Your task to perform on an android device: Go to ESPN.com Image 0: 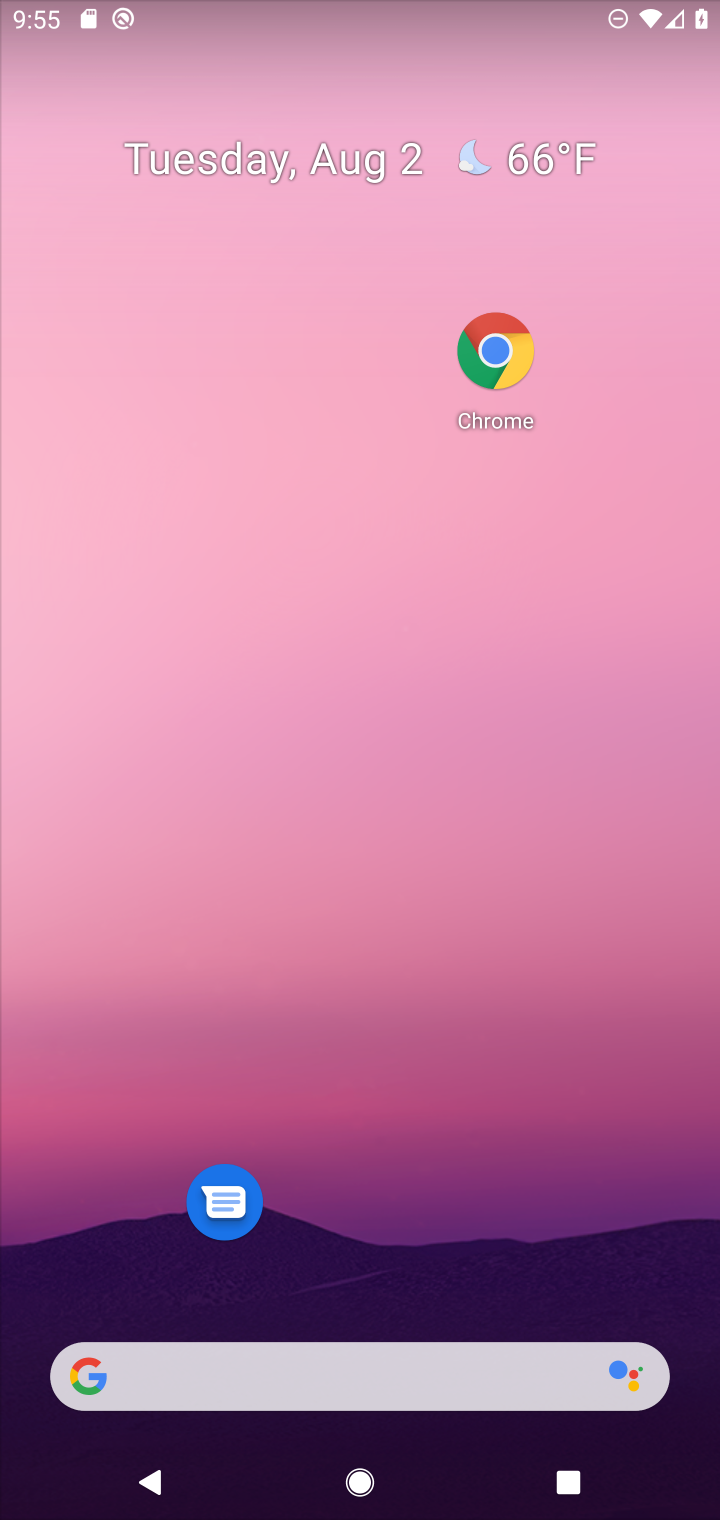
Step 0: click (500, 358)
Your task to perform on an android device: Go to ESPN.com Image 1: 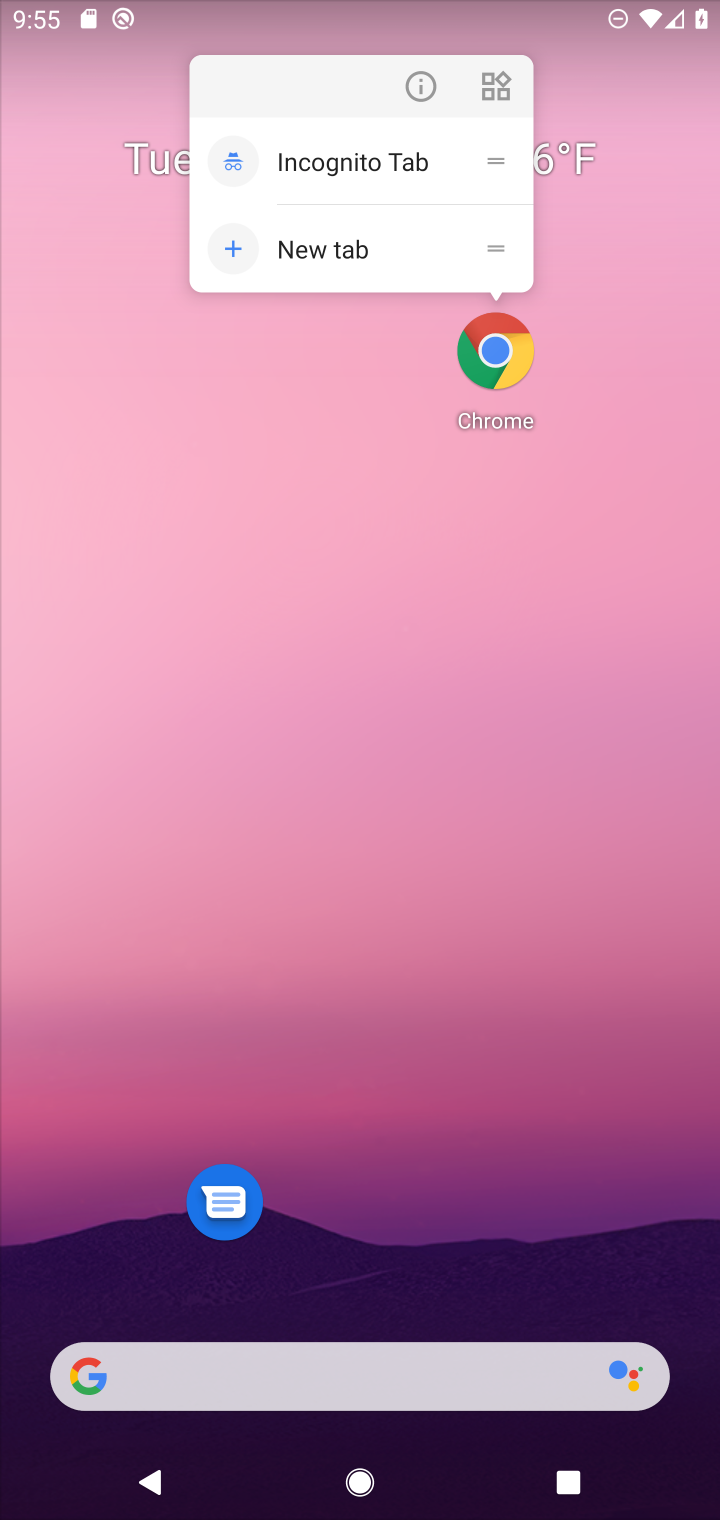
Step 1: click (500, 358)
Your task to perform on an android device: Go to ESPN.com Image 2: 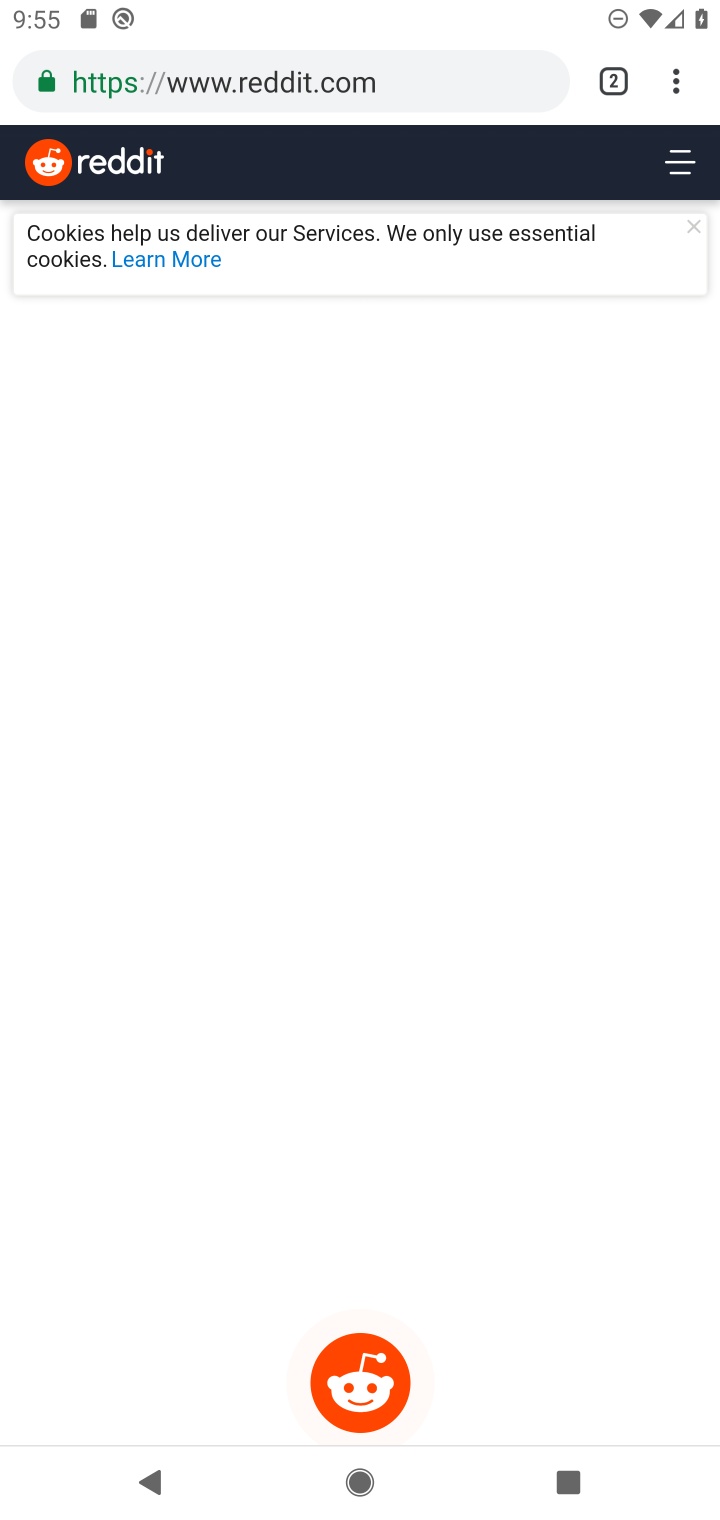
Step 2: click (436, 66)
Your task to perform on an android device: Go to ESPN.com Image 3: 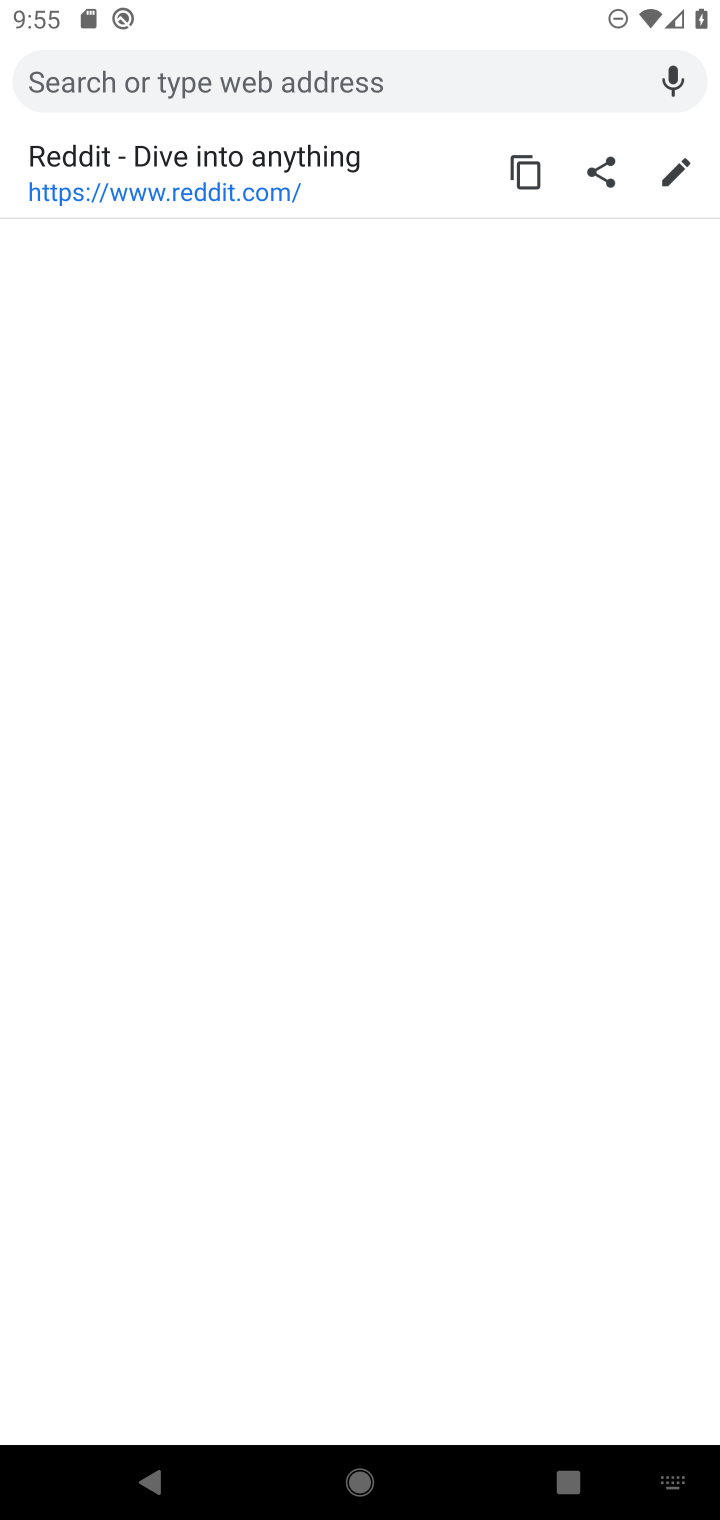
Step 3: type "espn.com"
Your task to perform on an android device: Go to ESPN.com Image 4: 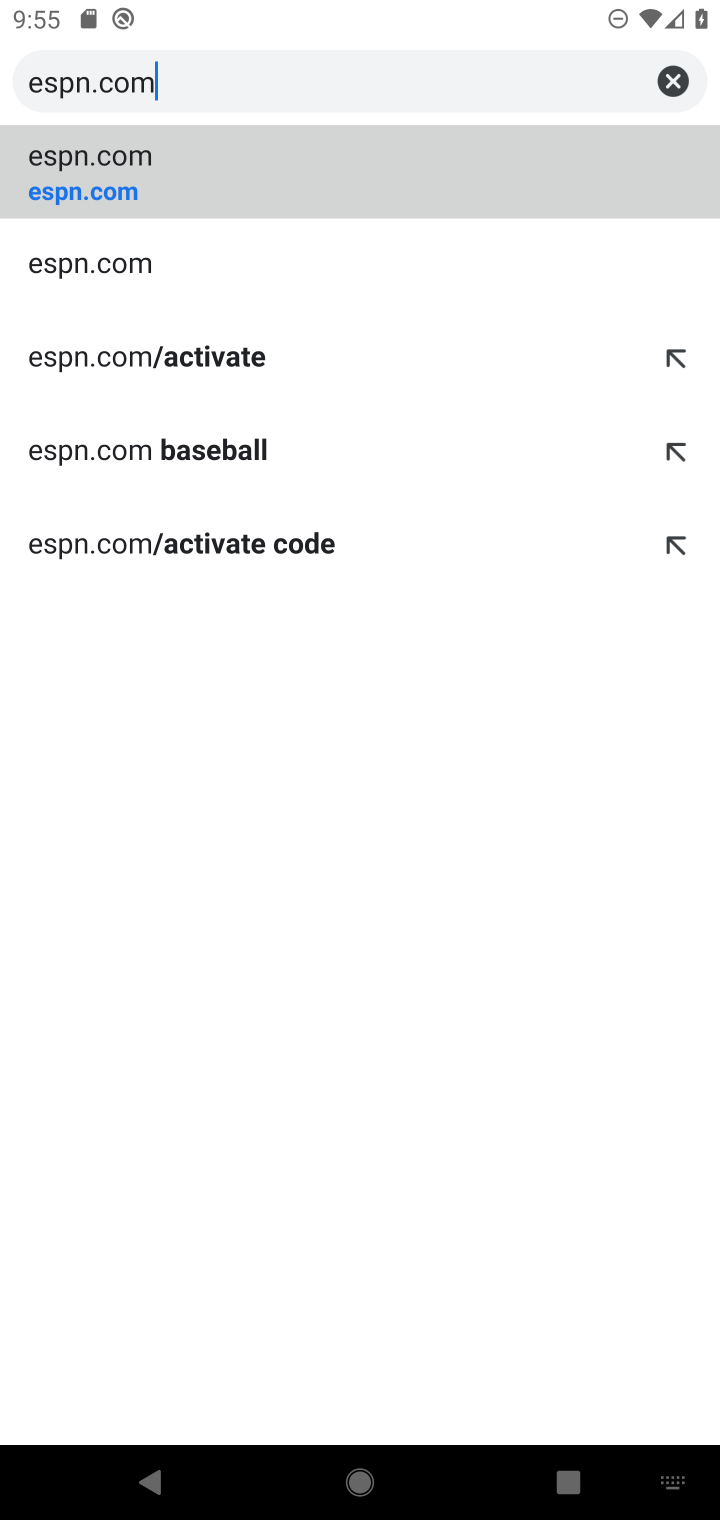
Step 4: click (109, 206)
Your task to perform on an android device: Go to ESPN.com Image 5: 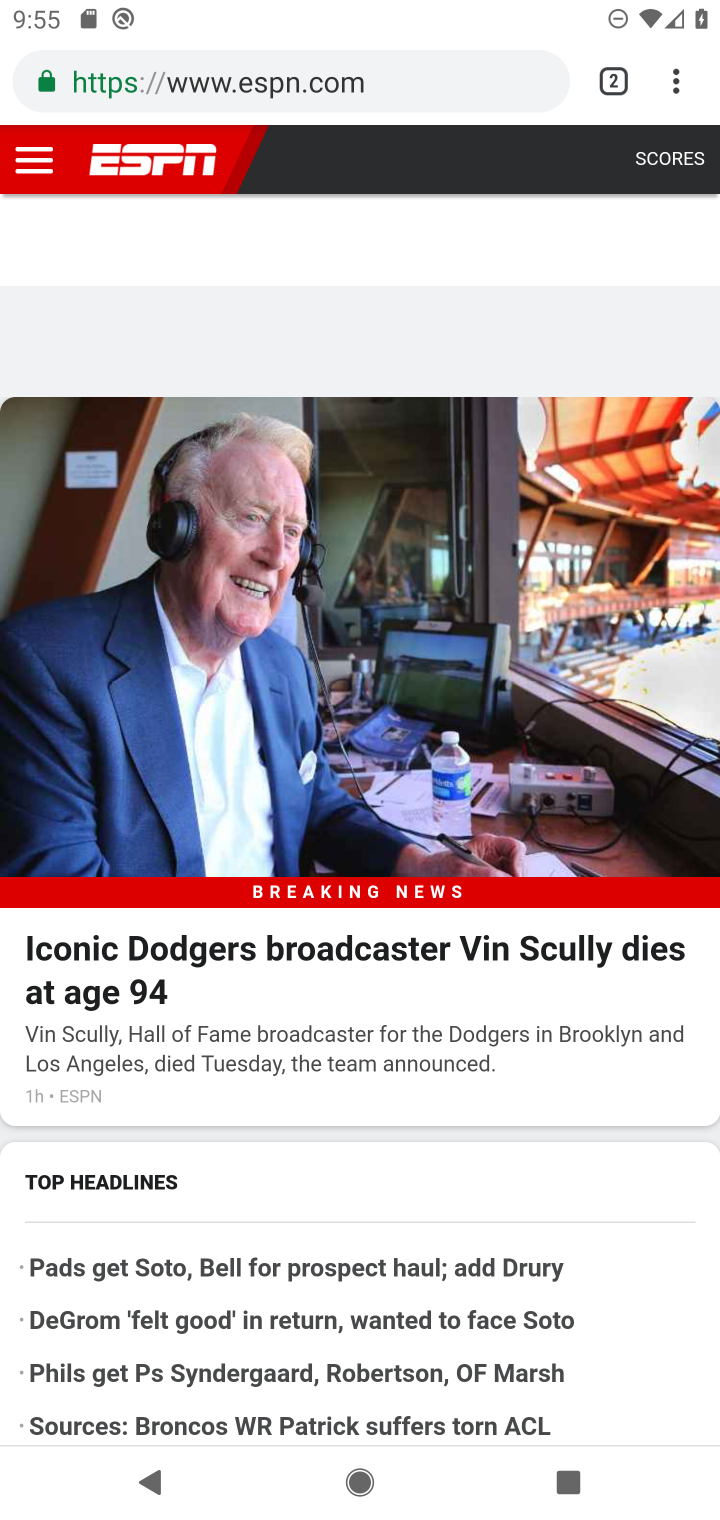
Step 5: task complete